Your task to perform on an android device: Open location settings Image 0: 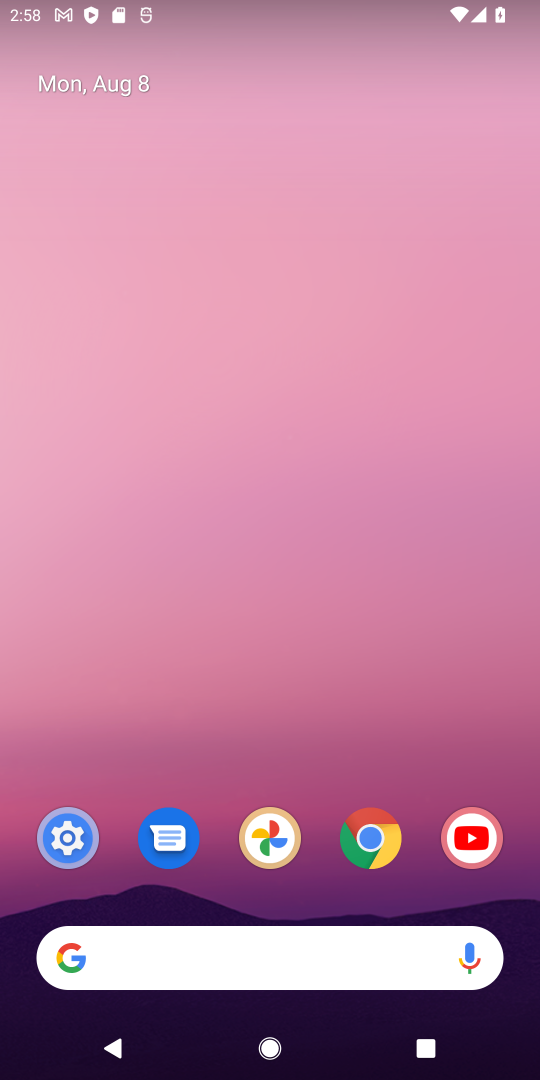
Step 0: click (69, 838)
Your task to perform on an android device: Open location settings Image 1: 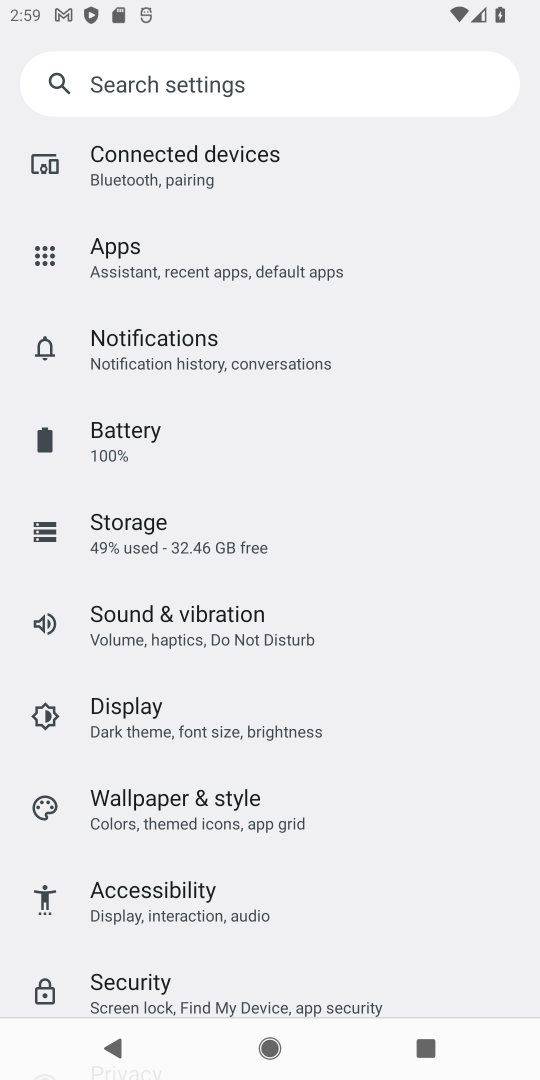
Step 1: drag from (180, 854) to (312, 565)
Your task to perform on an android device: Open location settings Image 2: 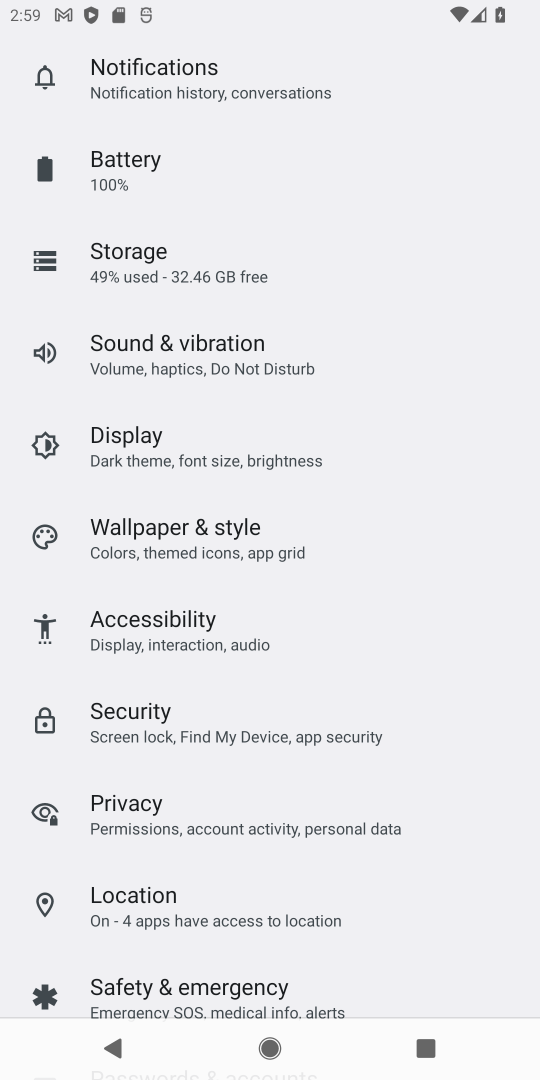
Step 2: click (206, 921)
Your task to perform on an android device: Open location settings Image 3: 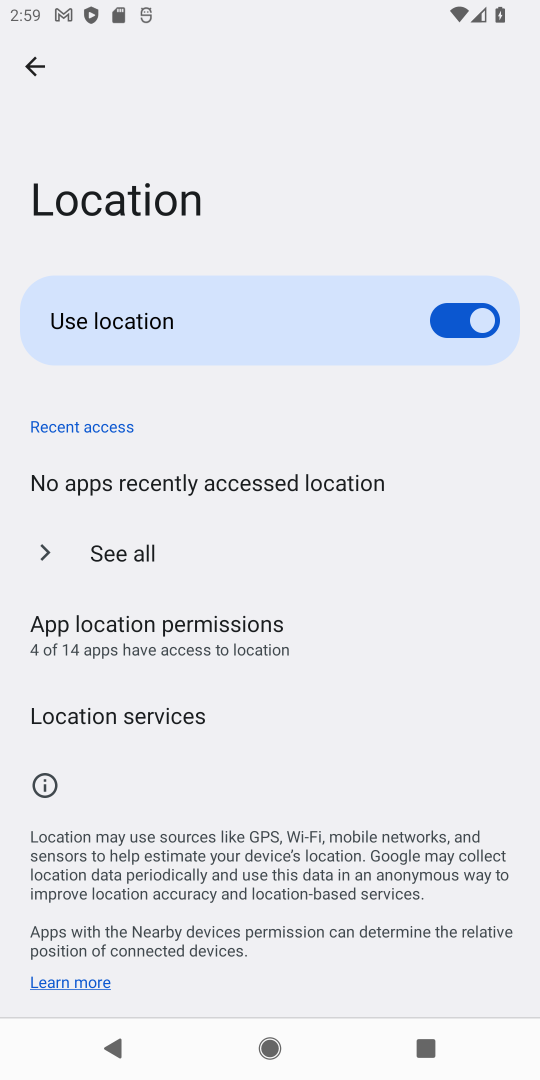
Step 3: task complete